Your task to perform on an android device: turn smart compose on in the gmail app Image 0: 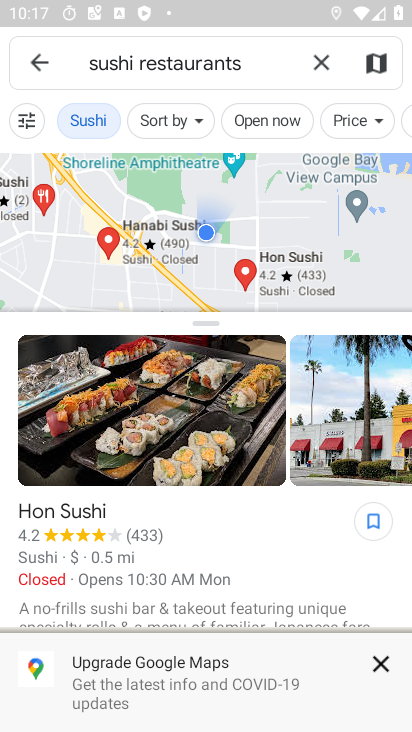
Step 0: press home button
Your task to perform on an android device: turn smart compose on in the gmail app Image 1: 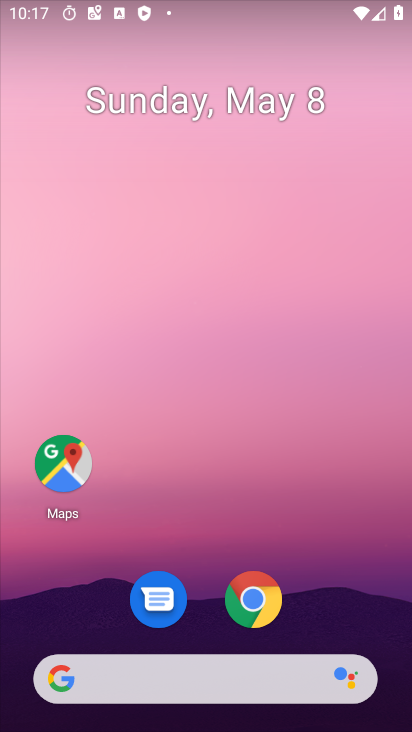
Step 1: drag from (231, 636) to (331, 196)
Your task to perform on an android device: turn smart compose on in the gmail app Image 2: 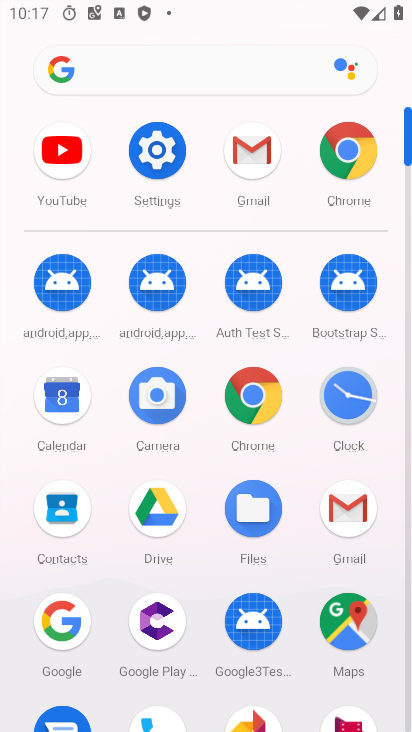
Step 2: drag from (233, 515) to (246, 337)
Your task to perform on an android device: turn smart compose on in the gmail app Image 3: 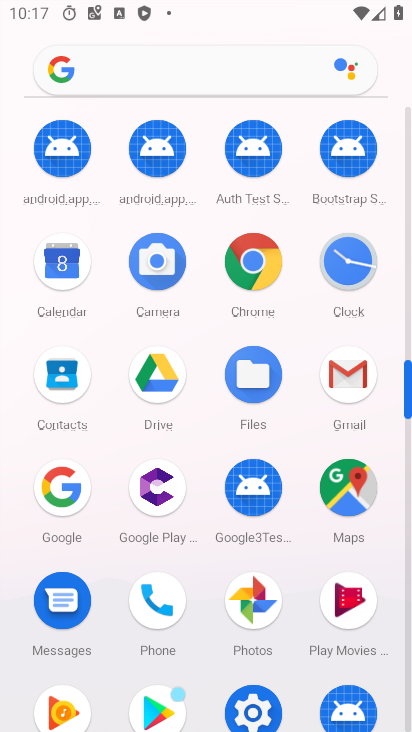
Step 3: click (347, 380)
Your task to perform on an android device: turn smart compose on in the gmail app Image 4: 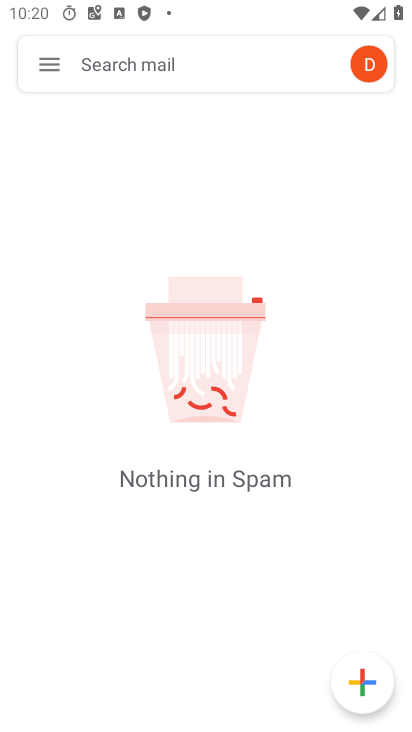
Step 4: click (51, 65)
Your task to perform on an android device: turn smart compose on in the gmail app Image 5: 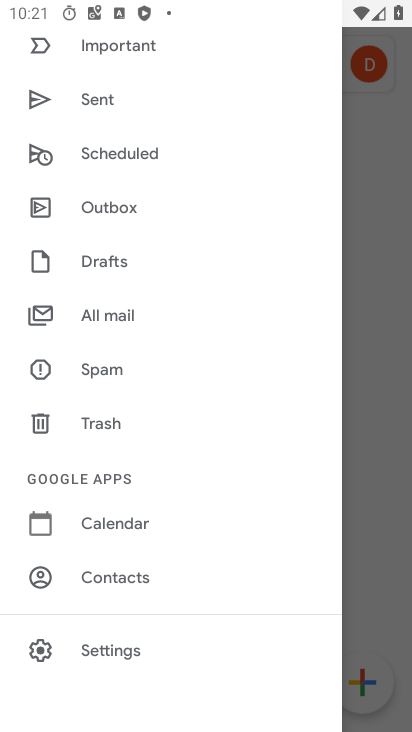
Step 5: drag from (155, 541) to (197, 319)
Your task to perform on an android device: turn smart compose on in the gmail app Image 6: 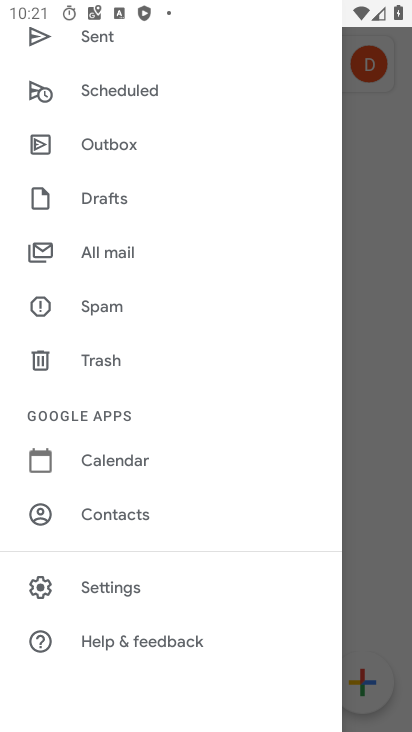
Step 6: click (128, 587)
Your task to perform on an android device: turn smart compose on in the gmail app Image 7: 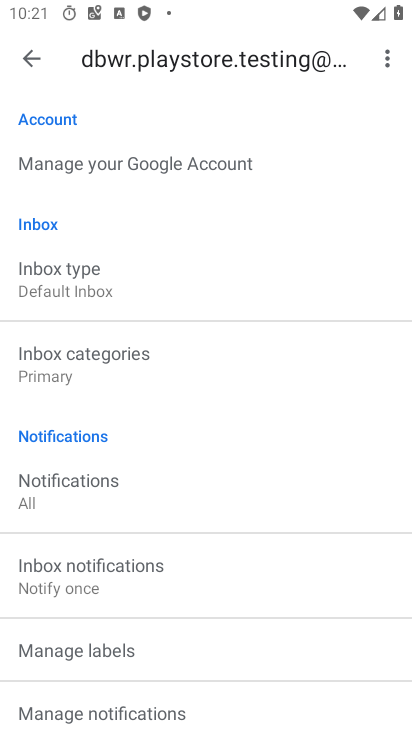
Step 7: click (196, 213)
Your task to perform on an android device: turn smart compose on in the gmail app Image 8: 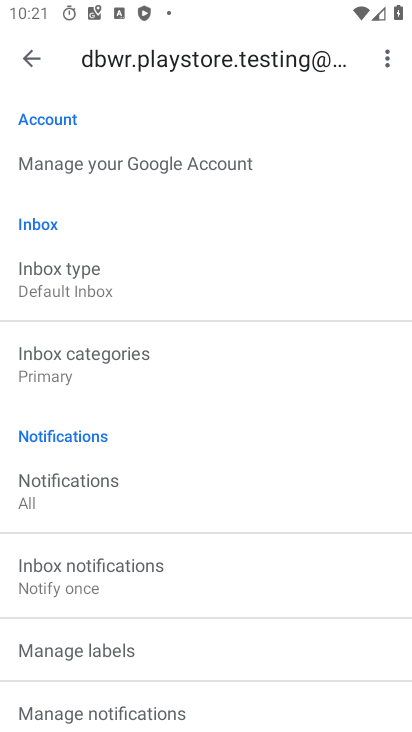
Step 8: drag from (309, 115) to (351, 26)
Your task to perform on an android device: turn smart compose on in the gmail app Image 9: 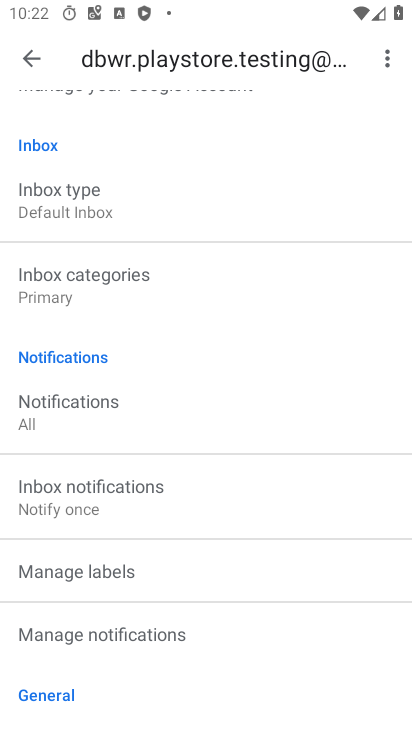
Step 9: drag from (256, 515) to (381, 614)
Your task to perform on an android device: turn smart compose on in the gmail app Image 10: 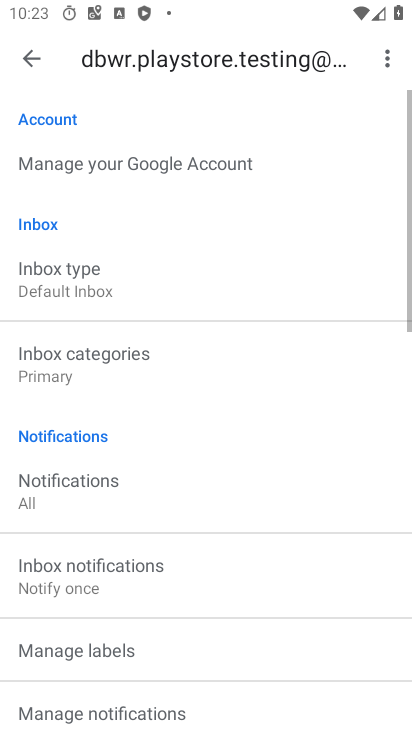
Step 10: press home button
Your task to perform on an android device: turn smart compose on in the gmail app Image 11: 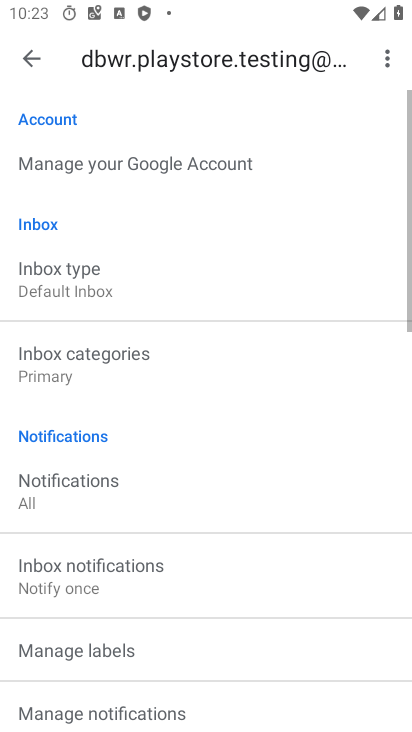
Step 11: press home button
Your task to perform on an android device: turn smart compose on in the gmail app Image 12: 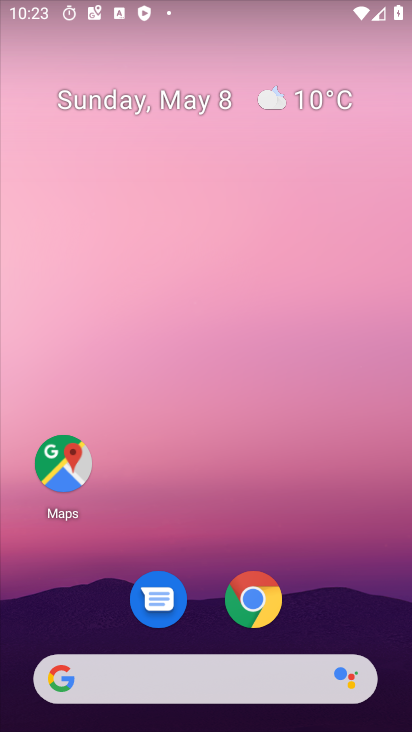
Step 12: drag from (235, 588) to (299, 194)
Your task to perform on an android device: turn smart compose on in the gmail app Image 13: 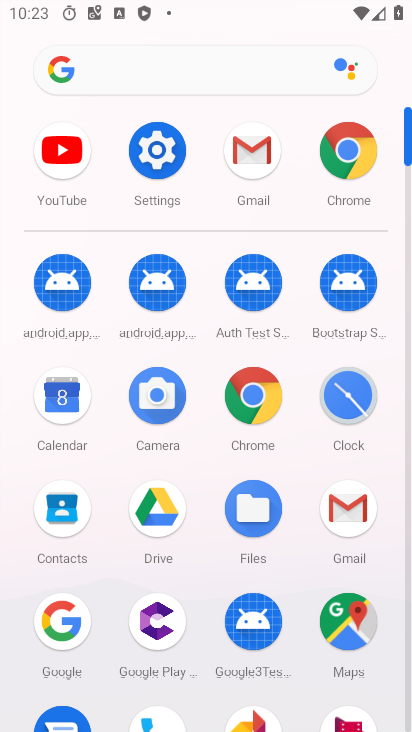
Step 13: click (348, 525)
Your task to perform on an android device: turn smart compose on in the gmail app Image 14: 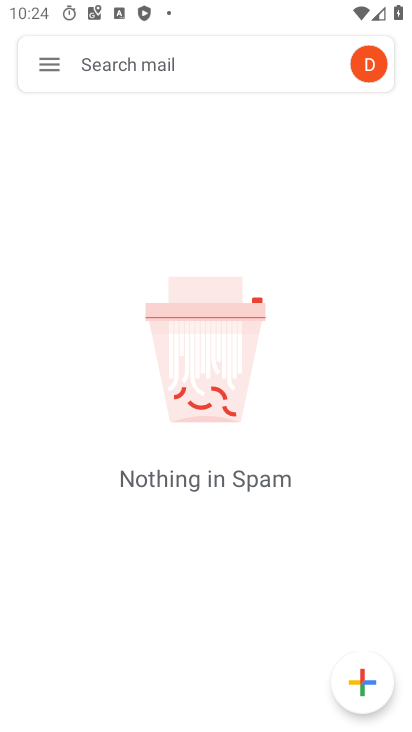
Step 14: click (51, 68)
Your task to perform on an android device: turn smart compose on in the gmail app Image 15: 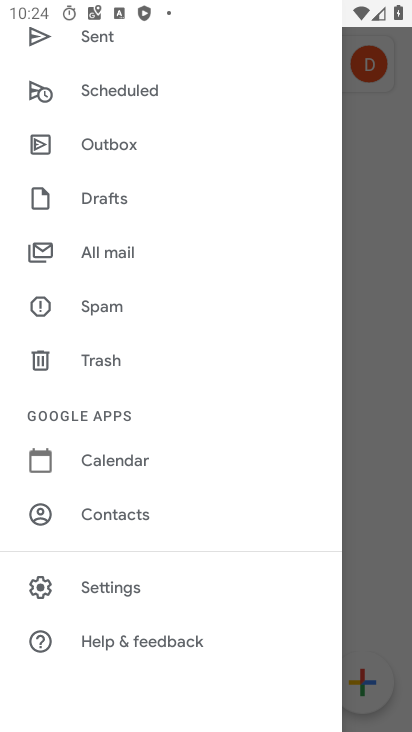
Step 15: click (154, 588)
Your task to perform on an android device: turn smart compose on in the gmail app Image 16: 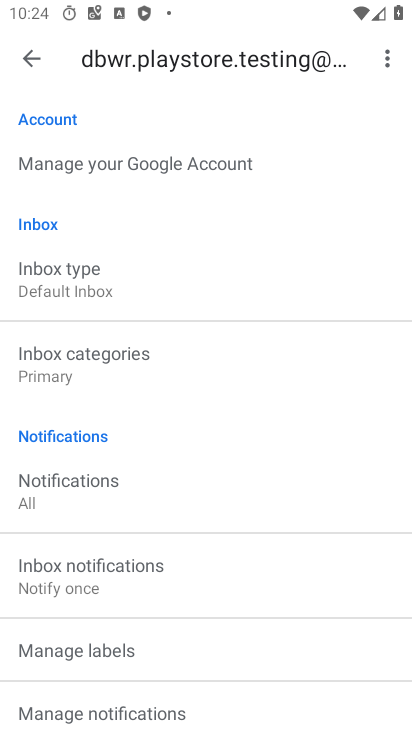
Step 16: task complete